Your task to perform on an android device: turn on notifications settings in the gmail app Image 0: 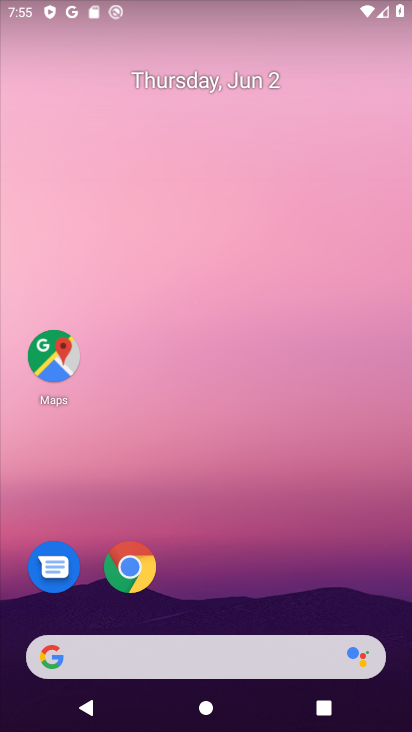
Step 0: drag from (304, 599) to (248, 175)
Your task to perform on an android device: turn on notifications settings in the gmail app Image 1: 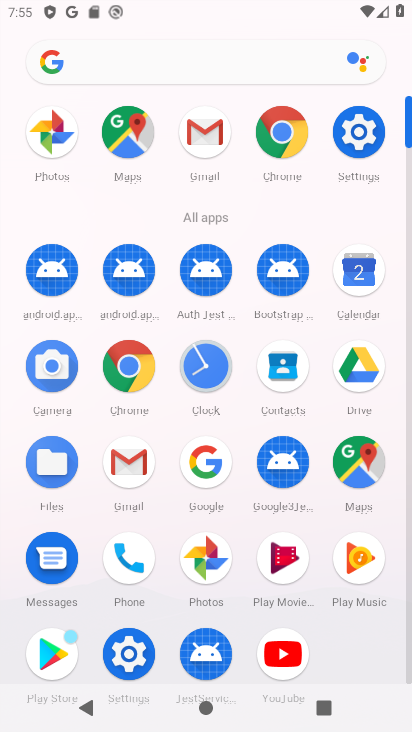
Step 1: click (352, 131)
Your task to perform on an android device: turn on notifications settings in the gmail app Image 2: 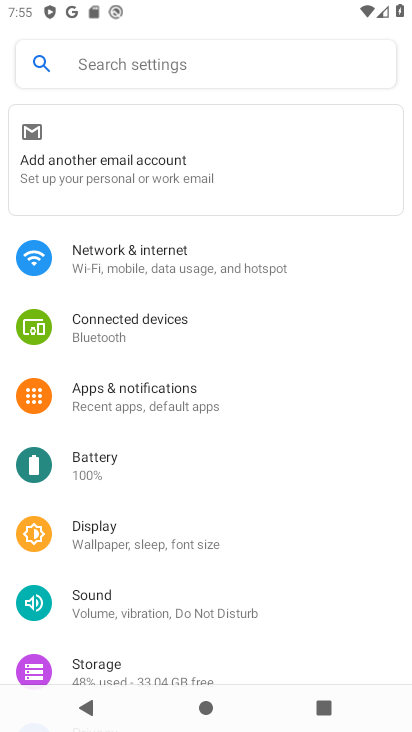
Step 2: press home button
Your task to perform on an android device: turn on notifications settings in the gmail app Image 3: 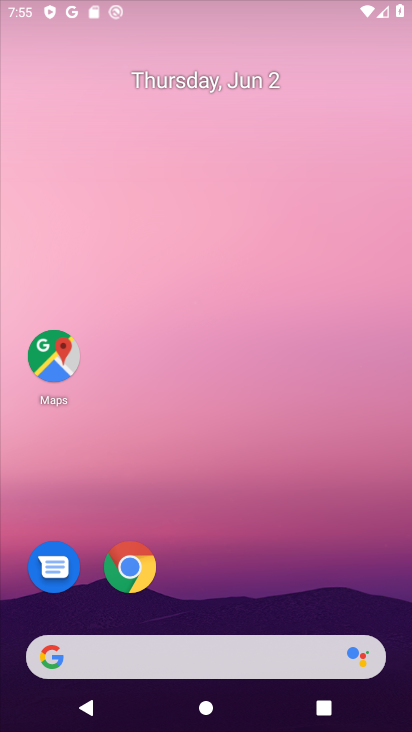
Step 3: drag from (346, 576) to (272, 169)
Your task to perform on an android device: turn on notifications settings in the gmail app Image 4: 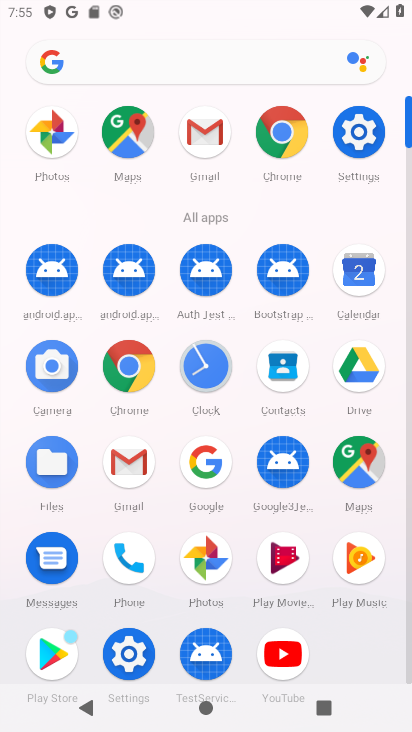
Step 4: click (126, 465)
Your task to perform on an android device: turn on notifications settings in the gmail app Image 5: 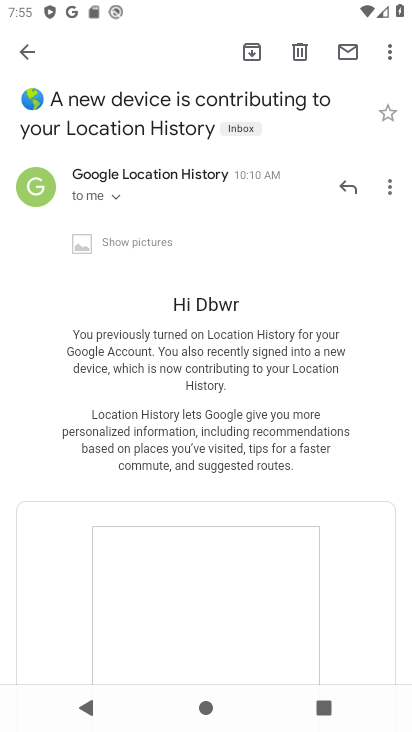
Step 5: click (22, 43)
Your task to perform on an android device: turn on notifications settings in the gmail app Image 6: 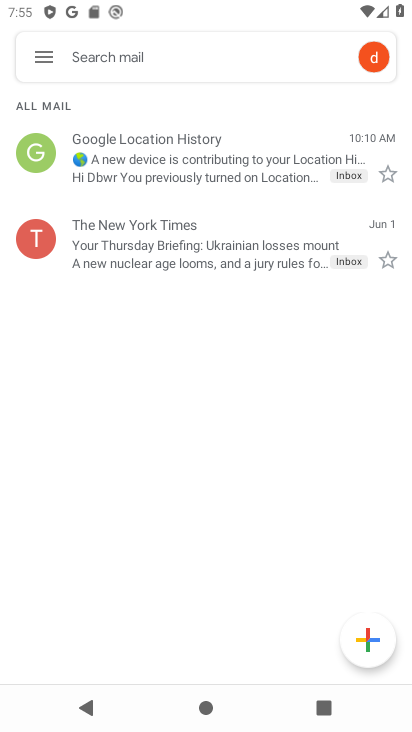
Step 6: click (35, 48)
Your task to perform on an android device: turn on notifications settings in the gmail app Image 7: 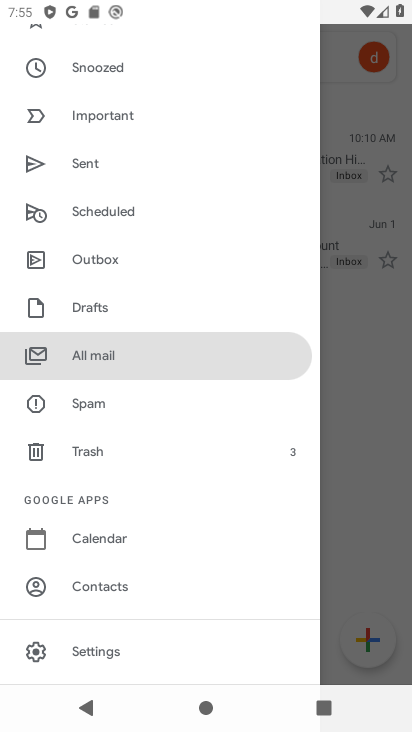
Step 7: click (90, 653)
Your task to perform on an android device: turn on notifications settings in the gmail app Image 8: 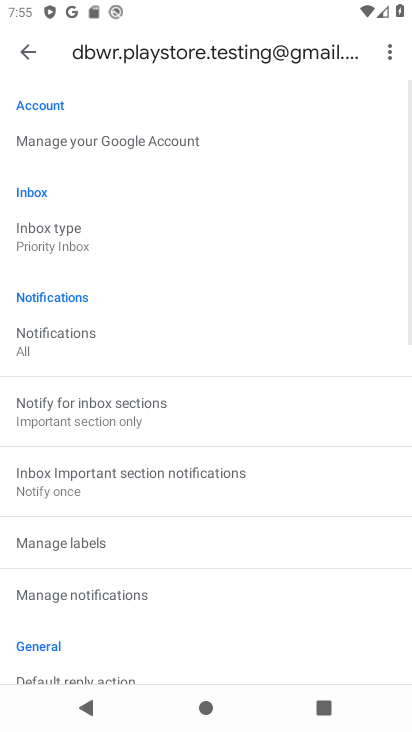
Step 8: drag from (164, 169) to (167, 609)
Your task to perform on an android device: turn on notifications settings in the gmail app Image 9: 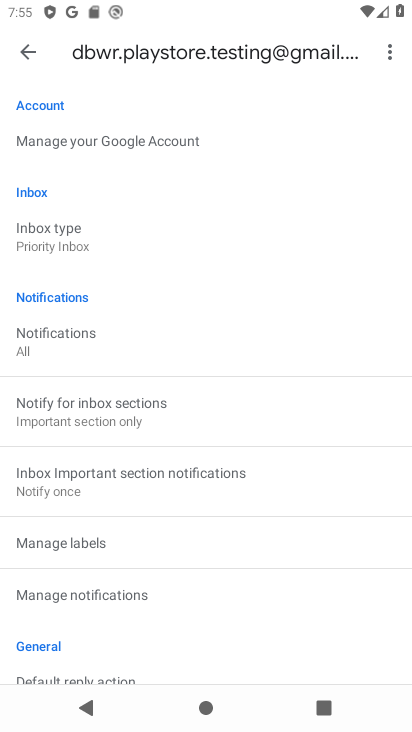
Step 9: click (100, 594)
Your task to perform on an android device: turn on notifications settings in the gmail app Image 10: 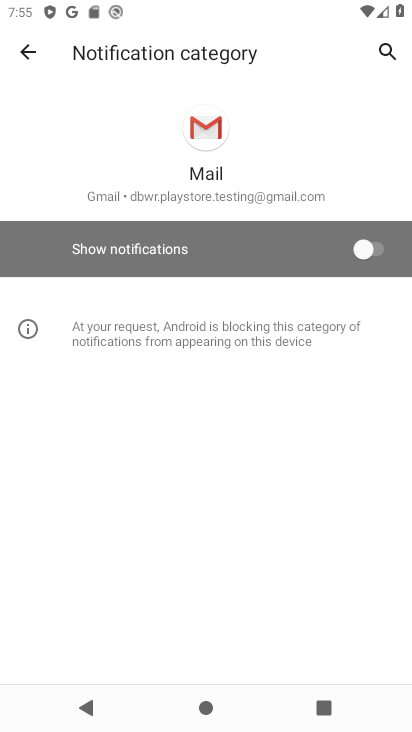
Step 10: click (352, 244)
Your task to perform on an android device: turn on notifications settings in the gmail app Image 11: 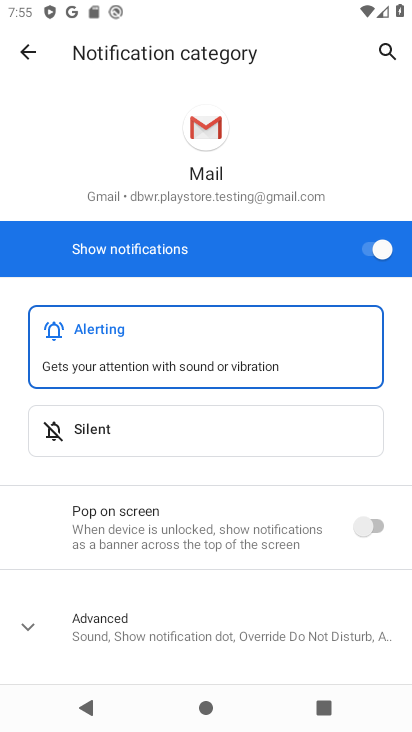
Step 11: task complete